Your task to perform on an android device: check battery use Image 0: 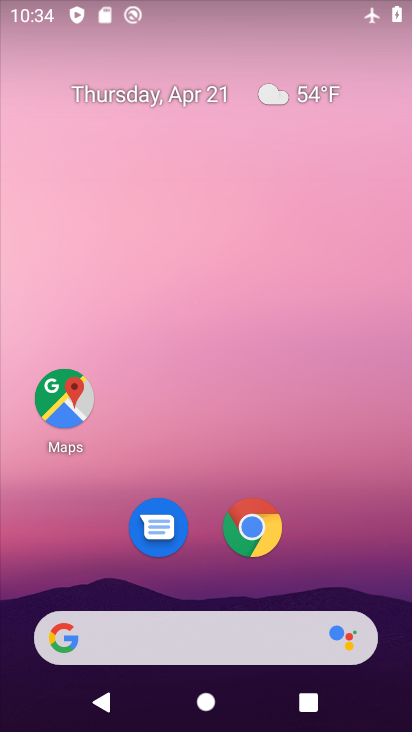
Step 0: drag from (340, 538) to (349, 201)
Your task to perform on an android device: check battery use Image 1: 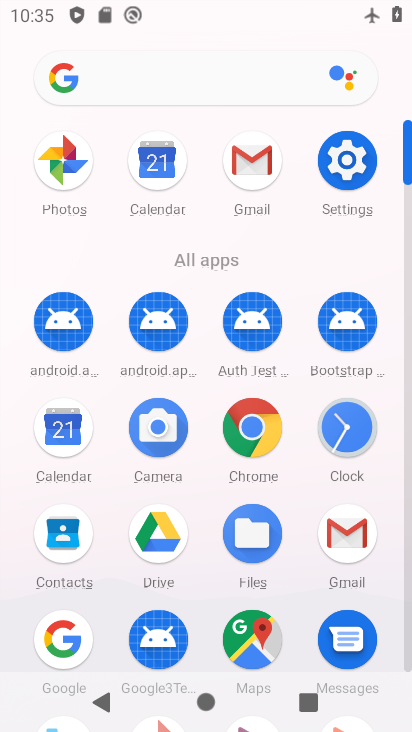
Step 1: click (351, 172)
Your task to perform on an android device: check battery use Image 2: 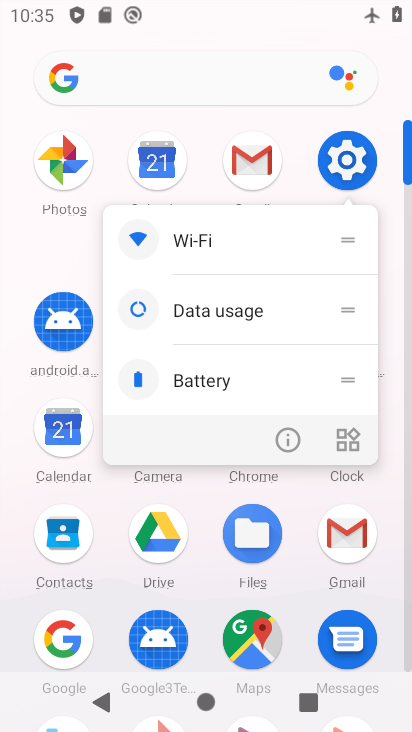
Step 2: click (350, 168)
Your task to perform on an android device: check battery use Image 3: 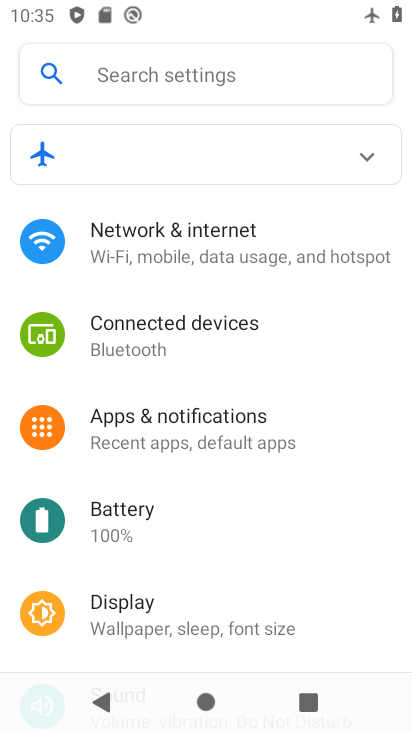
Step 3: click (224, 523)
Your task to perform on an android device: check battery use Image 4: 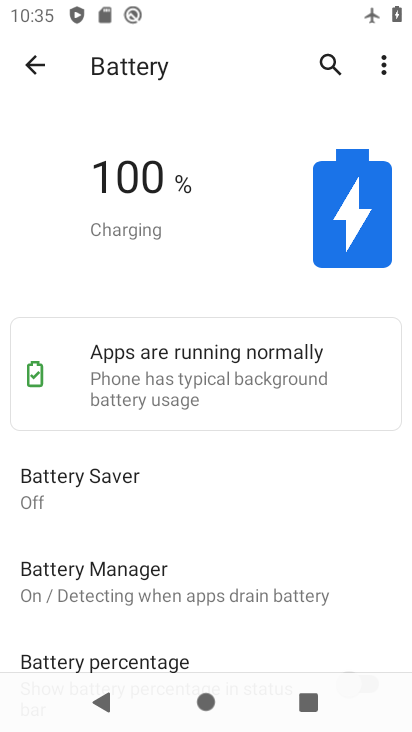
Step 4: task complete